Your task to perform on an android device: Search for pizza restaurants on Maps Image 0: 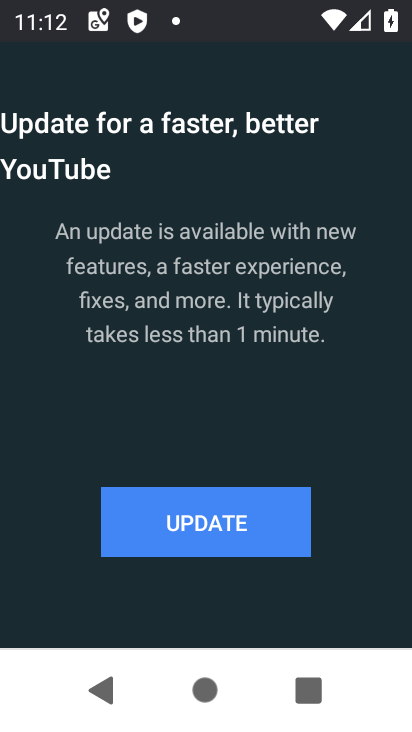
Step 0: press home button
Your task to perform on an android device: Search for pizza restaurants on Maps Image 1: 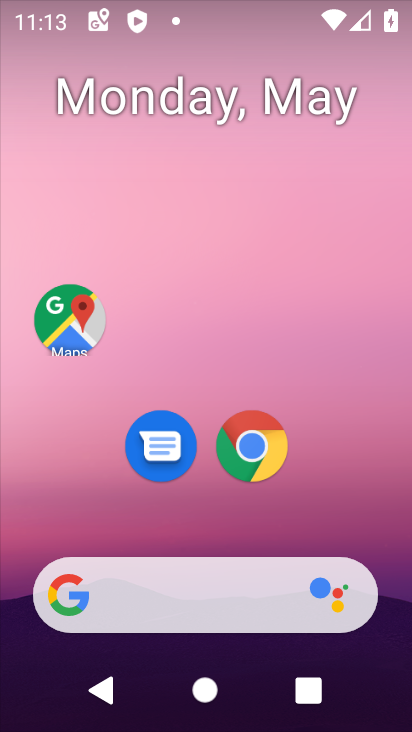
Step 1: drag from (347, 464) to (293, 28)
Your task to perform on an android device: Search for pizza restaurants on Maps Image 2: 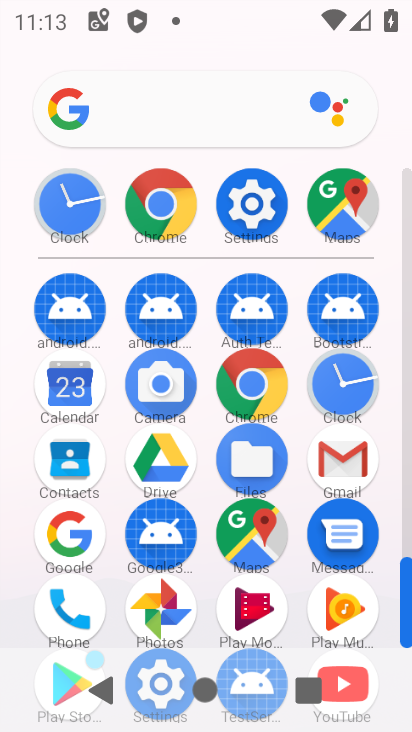
Step 2: click (365, 215)
Your task to perform on an android device: Search for pizza restaurants on Maps Image 3: 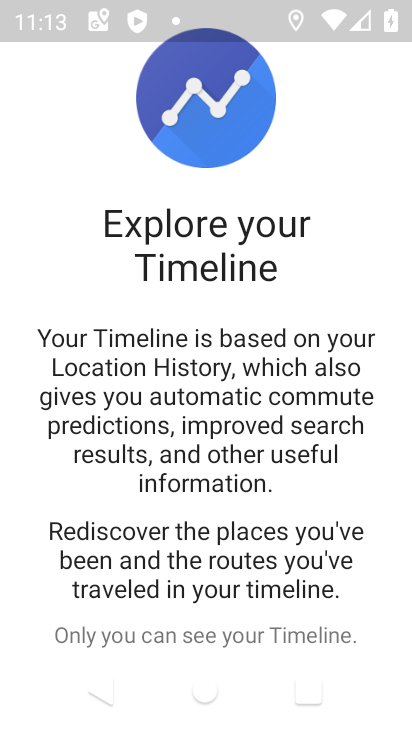
Step 3: drag from (245, 627) to (182, 274)
Your task to perform on an android device: Search for pizza restaurants on Maps Image 4: 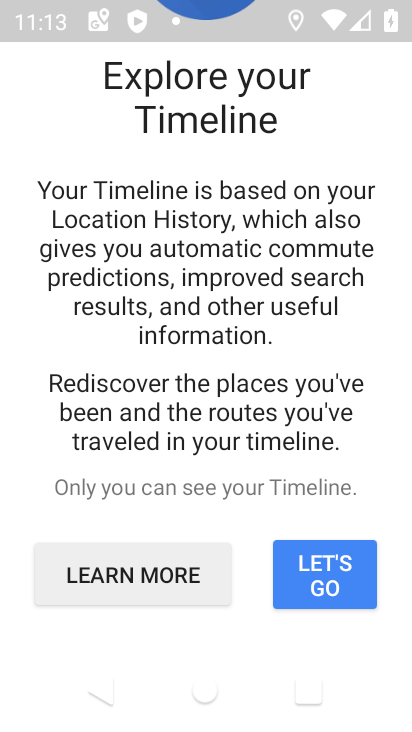
Step 4: press back button
Your task to perform on an android device: Search for pizza restaurants on Maps Image 5: 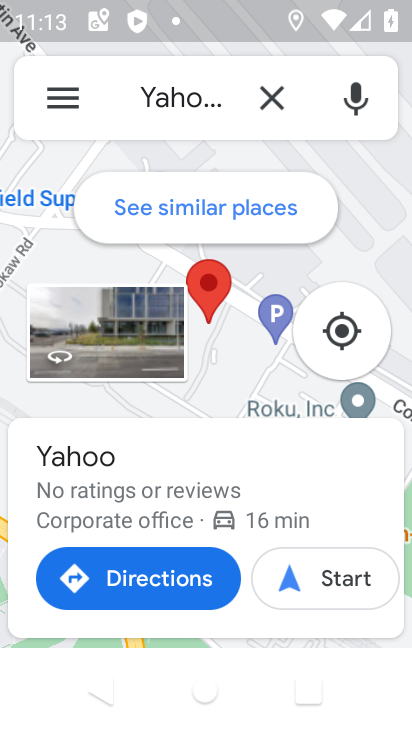
Step 5: click (255, 102)
Your task to perform on an android device: Search for pizza restaurants on Maps Image 6: 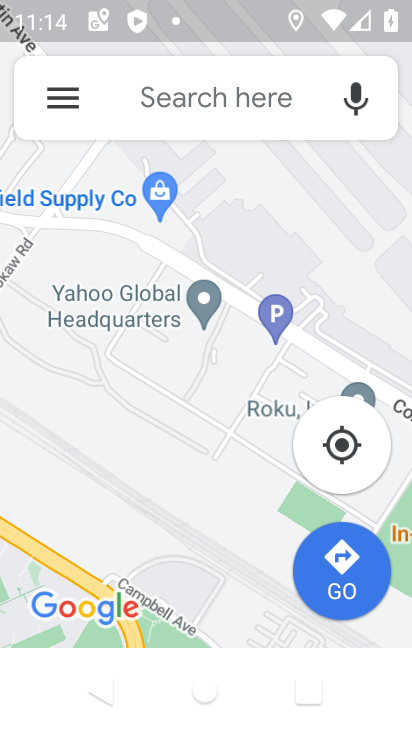
Step 6: click (256, 101)
Your task to perform on an android device: Search for pizza restaurants on Maps Image 7: 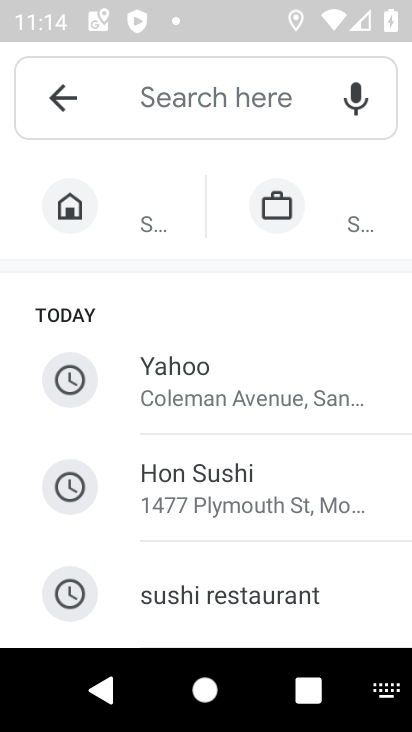
Step 7: drag from (203, 589) to (238, 225)
Your task to perform on an android device: Search for pizza restaurants on Maps Image 8: 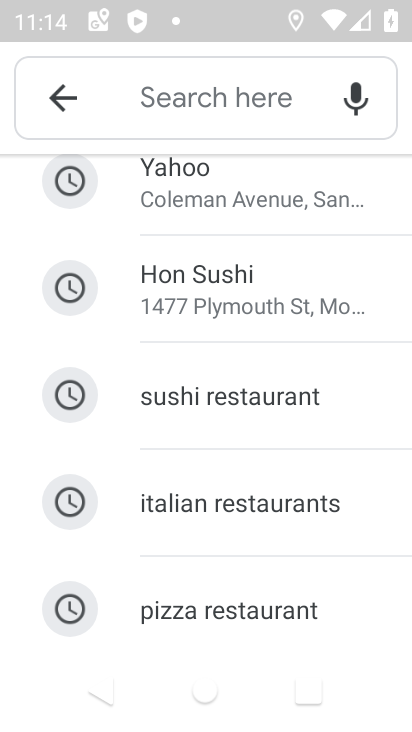
Step 8: click (200, 591)
Your task to perform on an android device: Search for pizza restaurants on Maps Image 9: 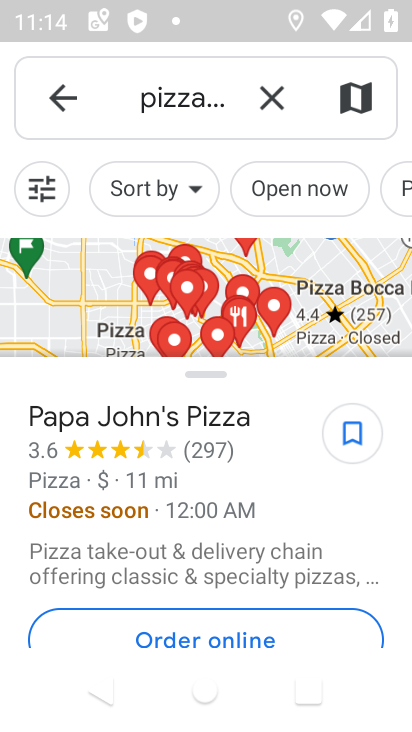
Step 9: task complete